Your task to perform on an android device: Go to calendar. Show me events next week Image 0: 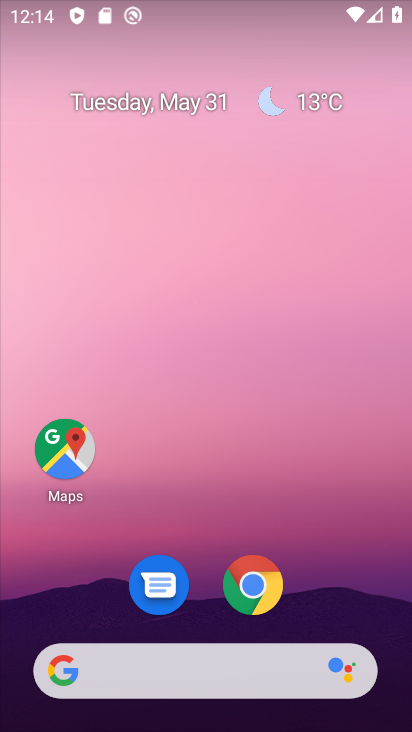
Step 0: drag from (225, 494) to (252, 48)
Your task to perform on an android device: Go to calendar. Show me events next week Image 1: 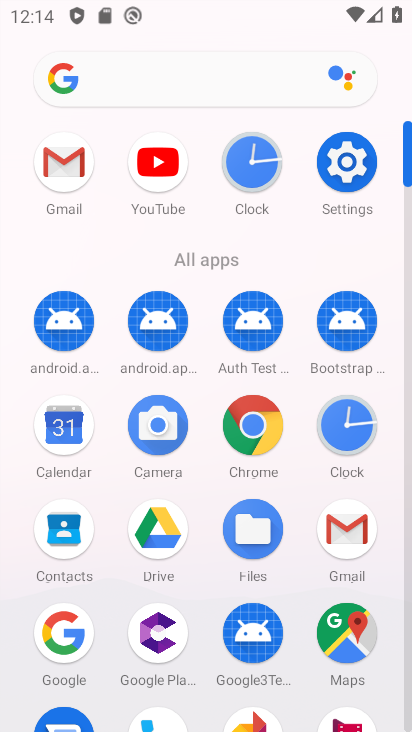
Step 1: click (60, 424)
Your task to perform on an android device: Go to calendar. Show me events next week Image 2: 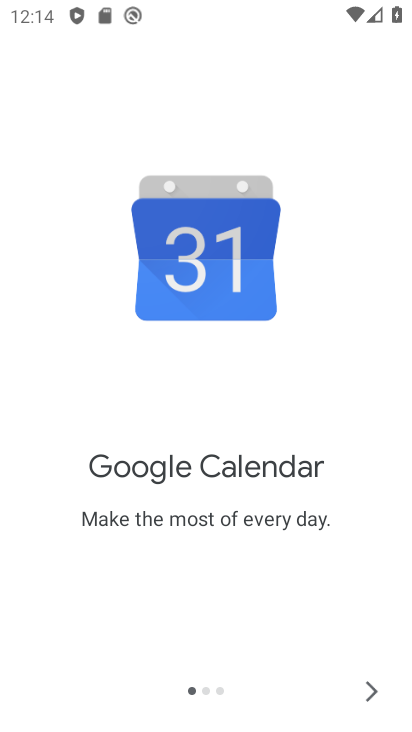
Step 2: click (366, 681)
Your task to perform on an android device: Go to calendar. Show me events next week Image 3: 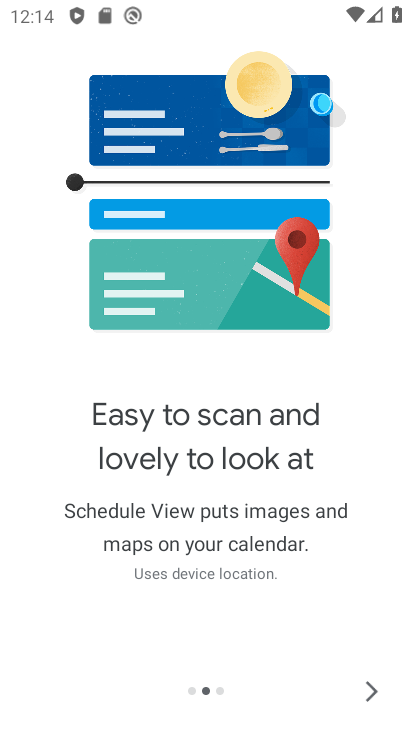
Step 3: click (366, 681)
Your task to perform on an android device: Go to calendar. Show me events next week Image 4: 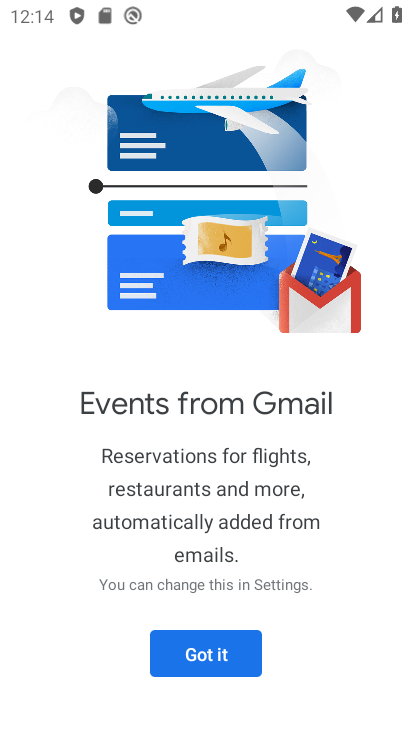
Step 4: click (243, 653)
Your task to perform on an android device: Go to calendar. Show me events next week Image 5: 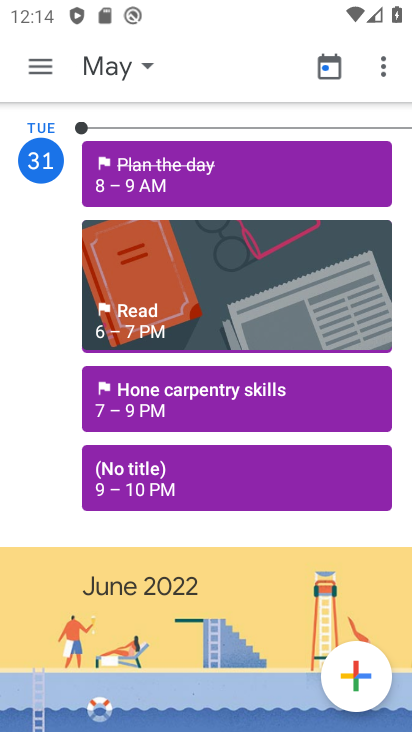
Step 5: click (36, 64)
Your task to perform on an android device: Go to calendar. Show me events next week Image 6: 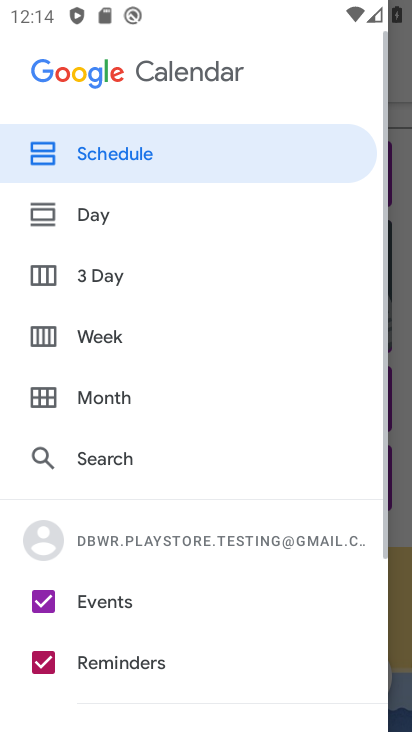
Step 6: click (45, 331)
Your task to perform on an android device: Go to calendar. Show me events next week Image 7: 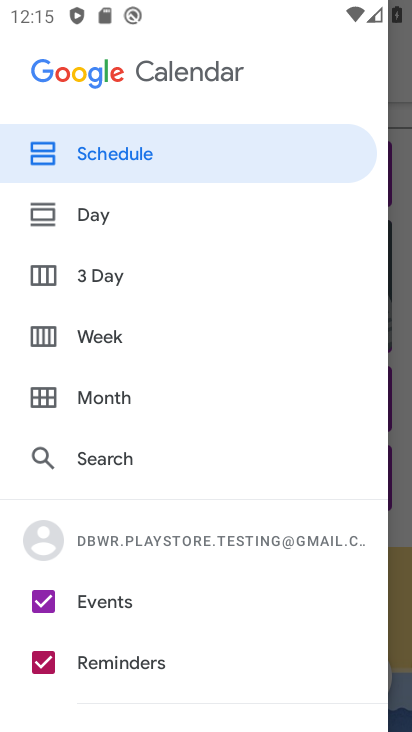
Step 7: click (45, 331)
Your task to perform on an android device: Go to calendar. Show me events next week Image 8: 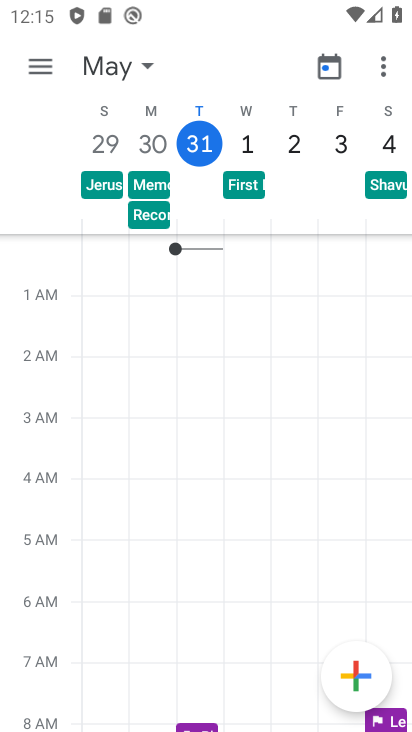
Step 8: task complete